Your task to perform on an android device: What's the weather going to be this weekend? Image 0: 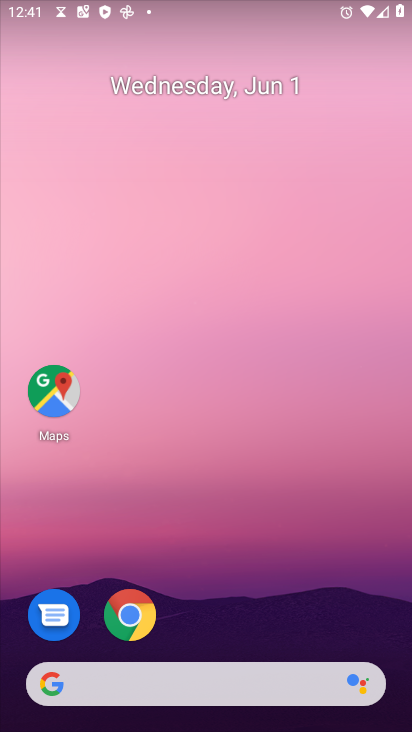
Step 0: drag from (325, 527) to (336, 52)
Your task to perform on an android device: What's the weather going to be this weekend? Image 1: 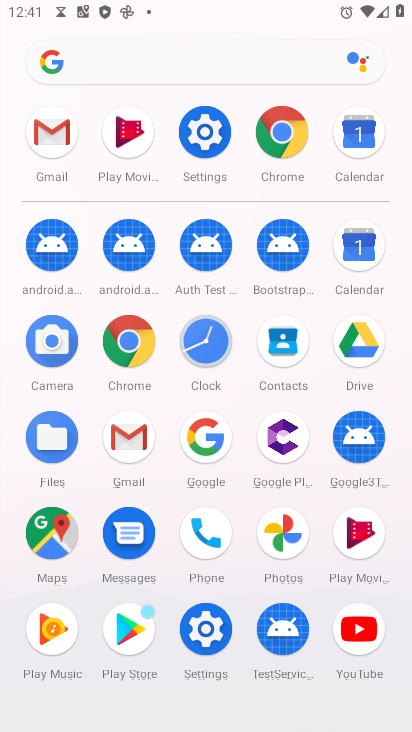
Step 1: click (59, 55)
Your task to perform on an android device: What's the weather going to be this weekend? Image 2: 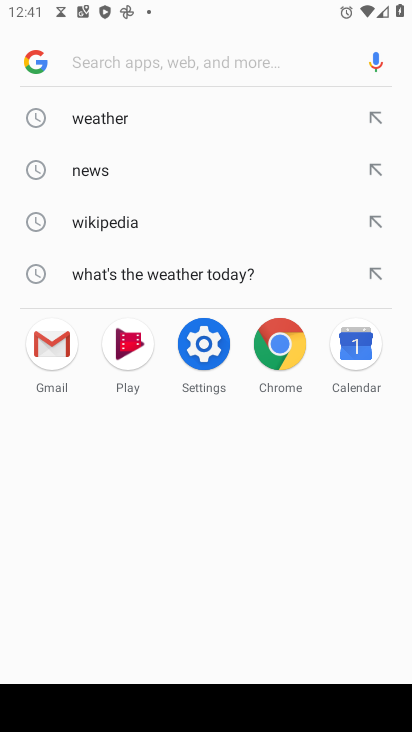
Step 2: click (24, 63)
Your task to perform on an android device: What's the weather going to be this weekend? Image 3: 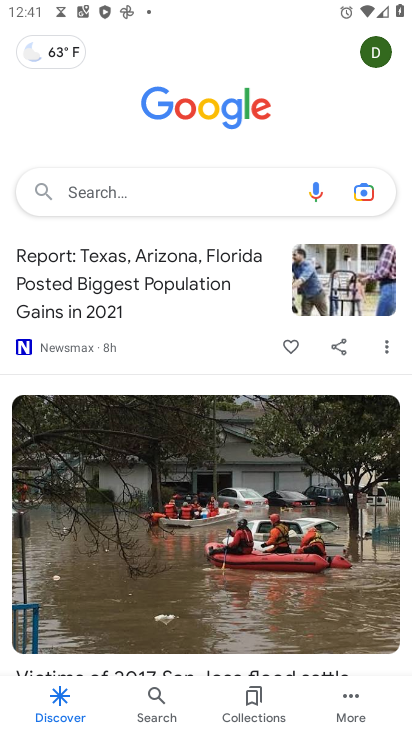
Step 3: click (34, 56)
Your task to perform on an android device: What's the weather going to be this weekend? Image 4: 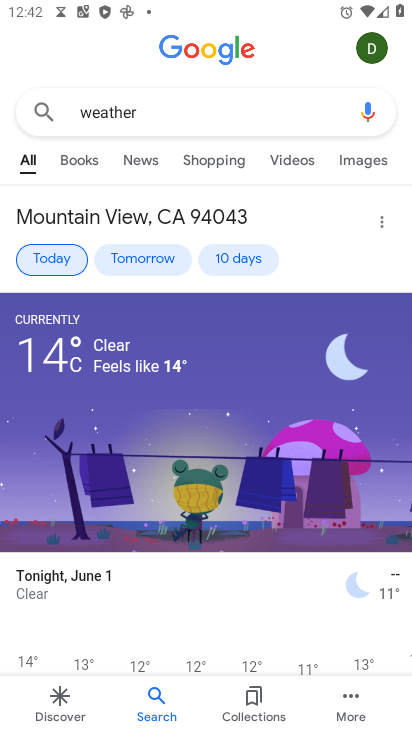
Step 4: task complete